Your task to perform on an android device: Empty the shopping cart on bestbuy.com. Search for razer blackwidow on bestbuy.com, select the first entry, add it to the cart, then select checkout. Image 0: 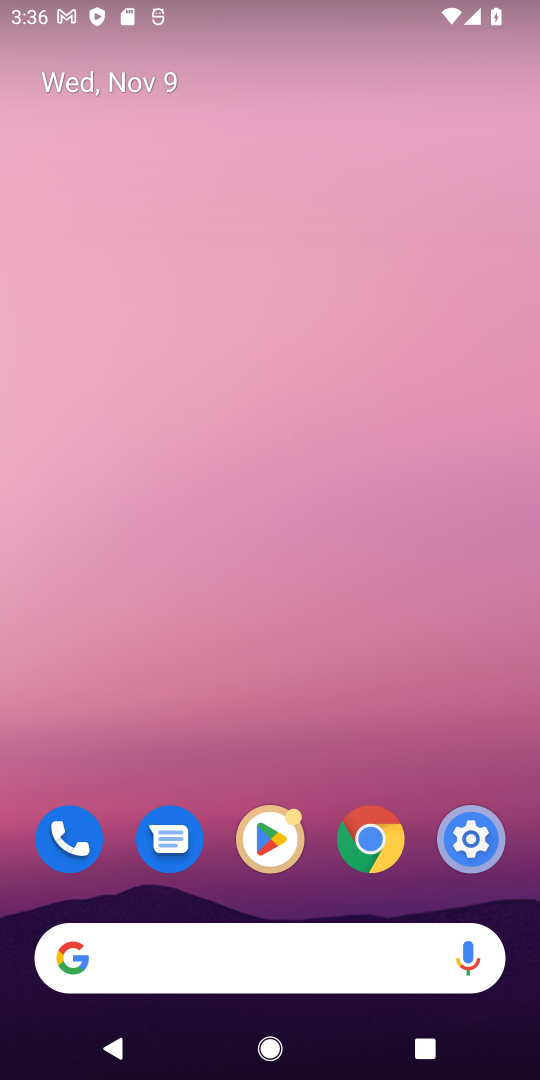
Step 0: click (191, 945)
Your task to perform on an android device: Empty the shopping cart on bestbuy.com. Search for razer blackwidow on bestbuy.com, select the first entry, add it to the cart, then select checkout. Image 1: 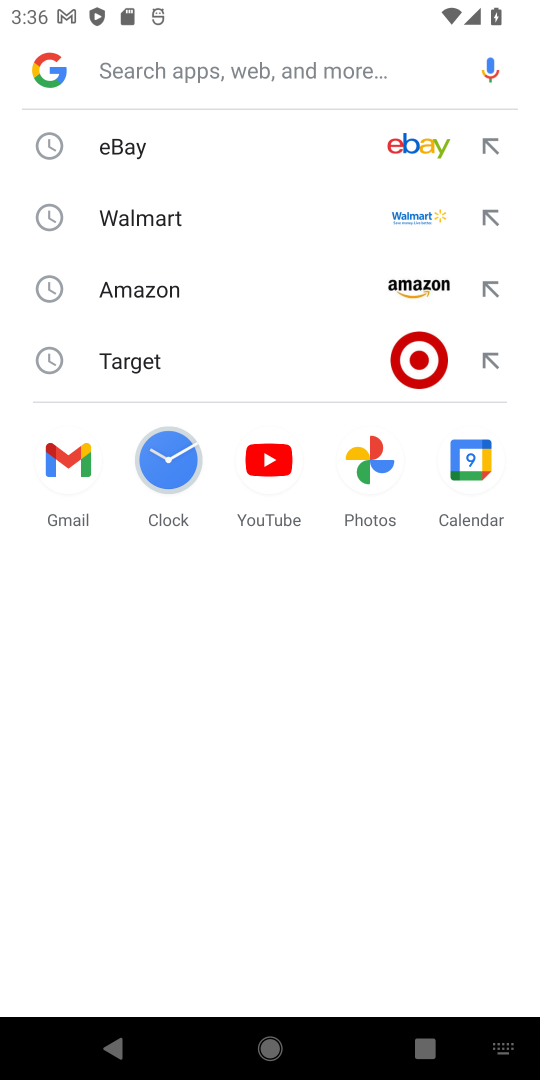
Step 1: type "best buy'"
Your task to perform on an android device: Empty the shopping cart on bestbuy.com. Search for razer blackwidow on bestbuy.com, select the first entry, add it to the cart, then select checkout. Image 2: 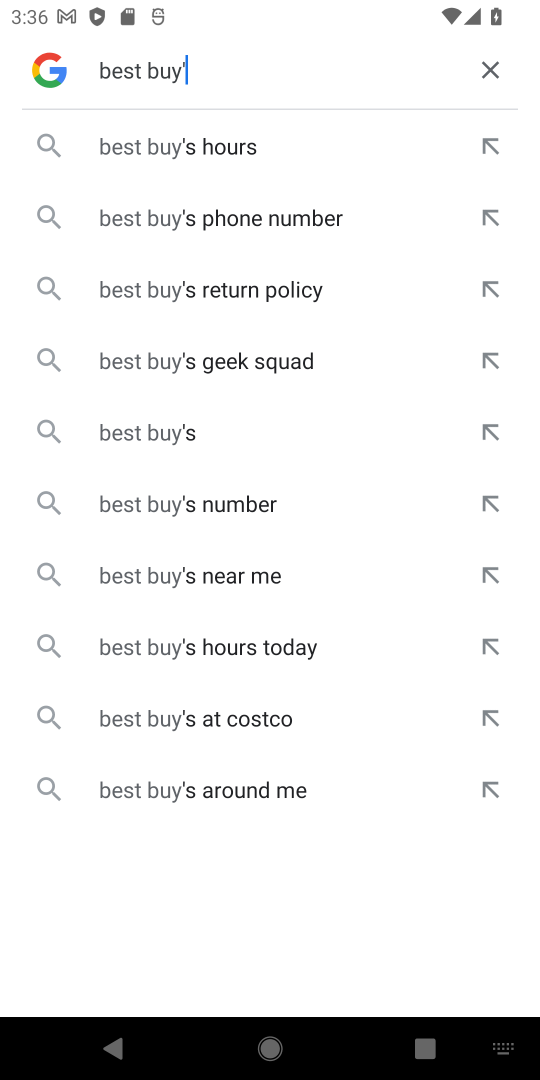
Step 2: click (255, 157)
Your task to perform on an android device: Empty the shopping cart on bestbuy.com. Search for razer blackwidow on bestbuy.com, select the first entry, add it to the cart, then select checkout. Image 3: 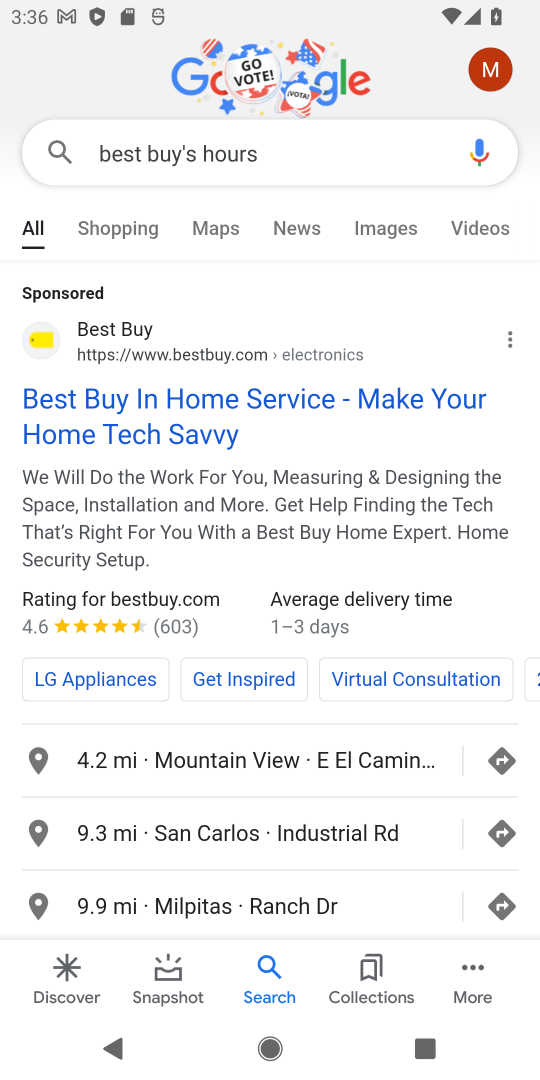
Step 3: click (293, 419)
Your task to perform on an android device: Empty the shopping cart on bestbuy.com. Search for razer blackwidow on bestbuy.com, select the first entry, add it to the cart, then select checkout. Image 4: 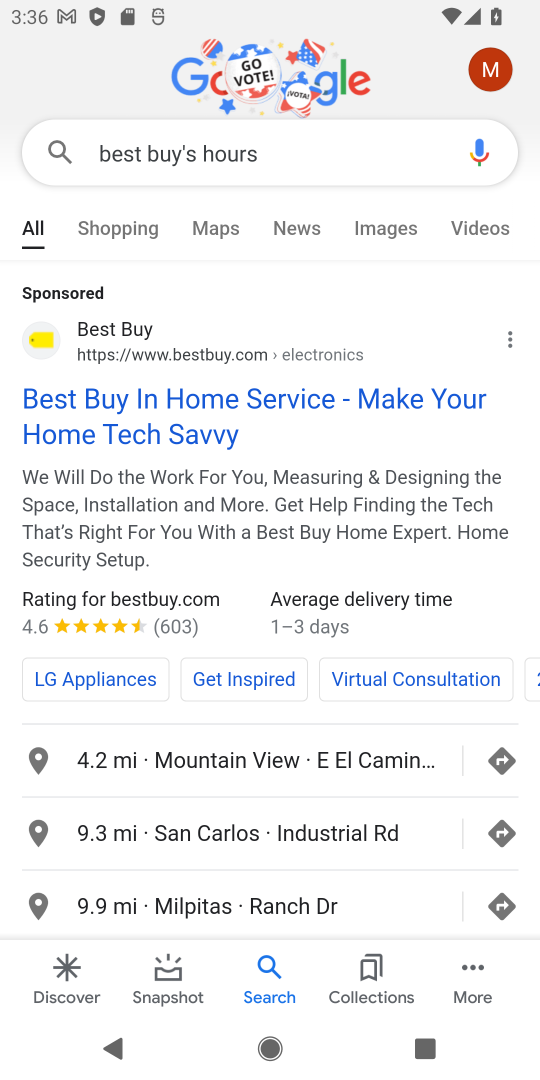
Step 4: task complete